Your task to perform on an android device: What's on my calendar tomorrow? Image 0: 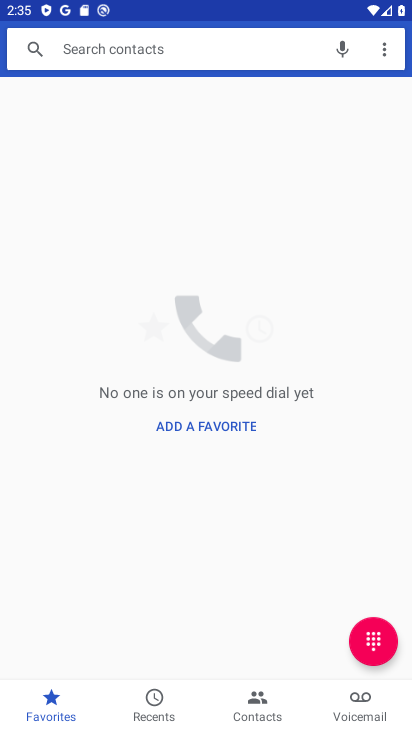
Step 0: press home button
Your task to perform on an android device: What's on my calendar tomorrow? Image 1: 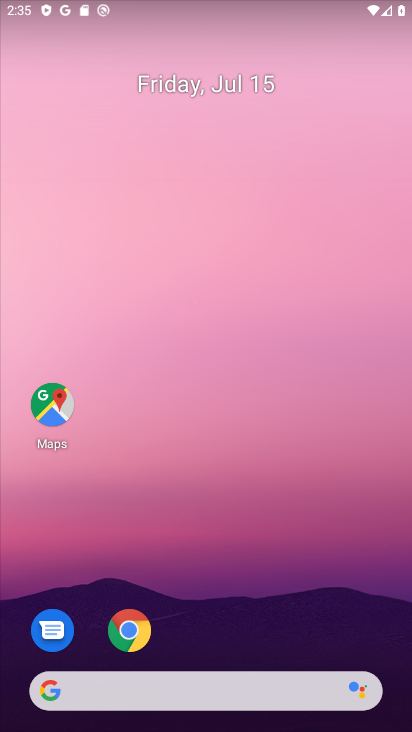
Step 1: drag from (249, 688) to (205, 52)
Your task to perform on an android device: What's on my calendar tomorrow? Image 2: 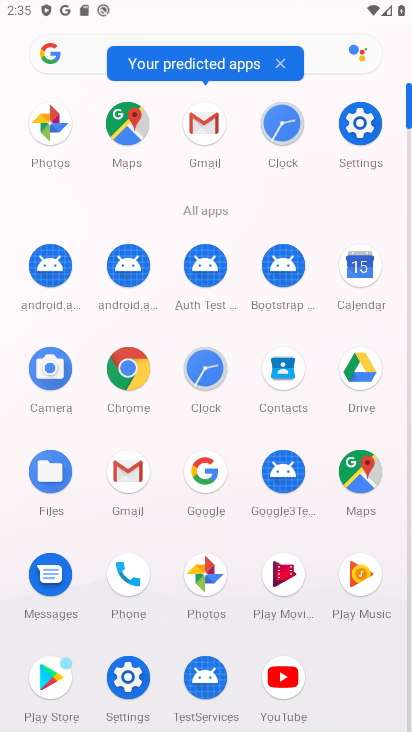
Step 2: click (354, 291)
Your task to perform on an android device: What's on my calendar tomorrow? Image 3: 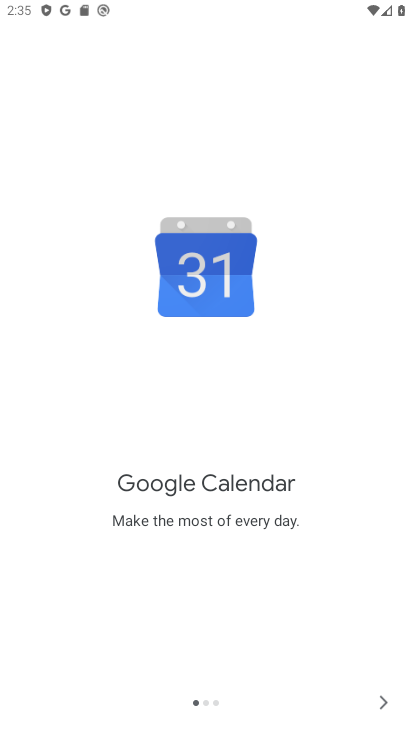
Step 3: click (379, 703)
Your task to perform on an android device: What's on my calendar tomorrow? Image 4: 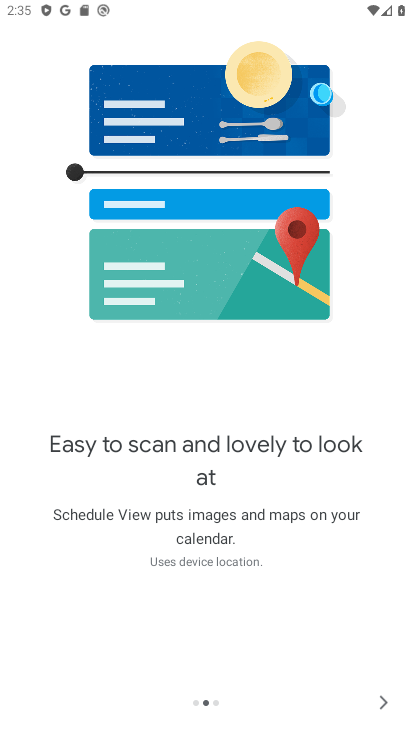
Step 4: click (381, 700)
Your task to perform on an android device: What's on my calendar tomorrow? Image 5: 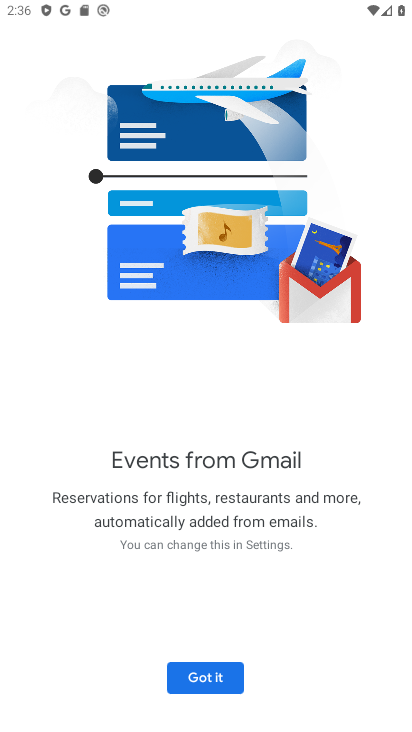
Step 5: click (237, 669)
Your task to perform on an android device: What's on my calendar tomorrow? Image 6: 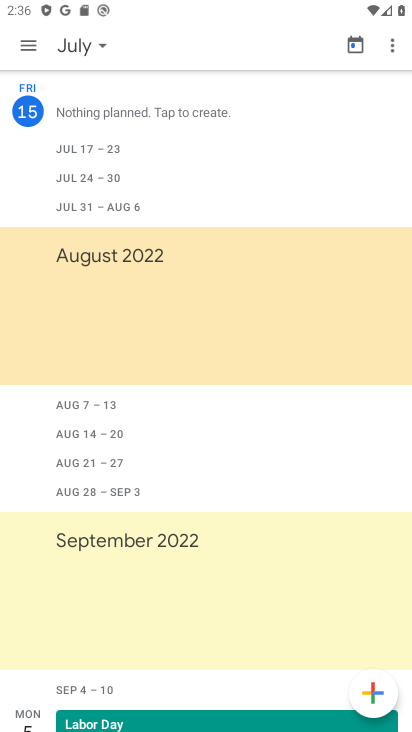
Step 6: click (95, 47)
Your task to perform on an android device: What's on my calendar tomorrow? Image 7: 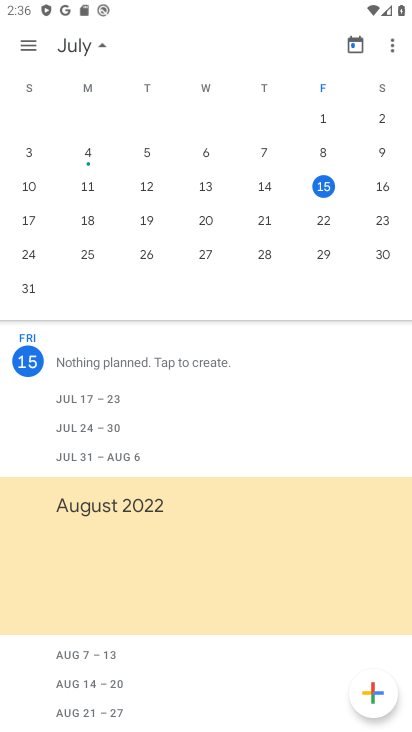
Step 7: click (386, 183)
Your task to perform on an android device: What's on my calendar tomorrow? Image 8: 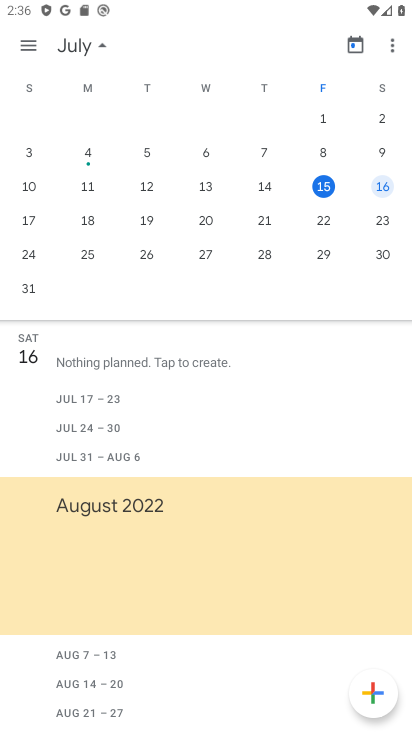
Step 8: task complete